Your task to perform on an android device: turn off javascript in the chrome app Image 0: 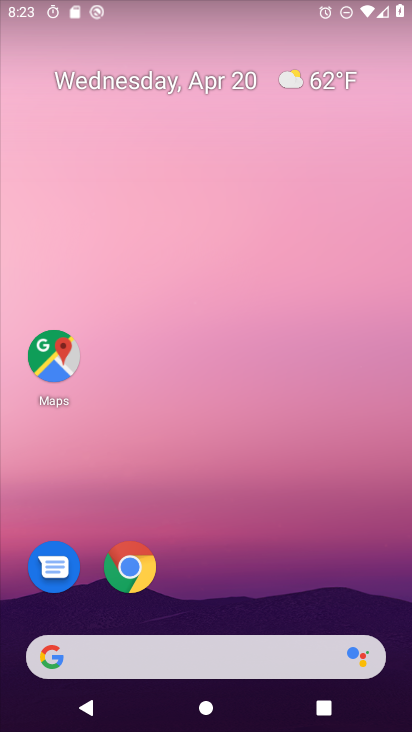
Step 0: click (152, 561)
Your task to perform on an android device: turn off javascript in the chrome app Image 1: 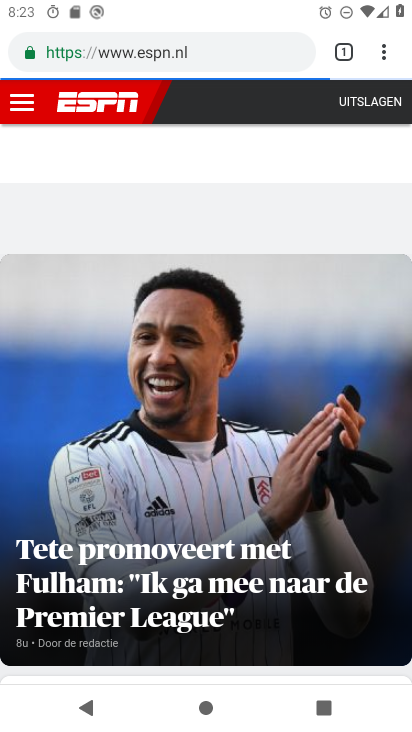
Step 1: click (383, 51)
Your task to perform on an android device: turn off javascript in the chrome app Image 2: 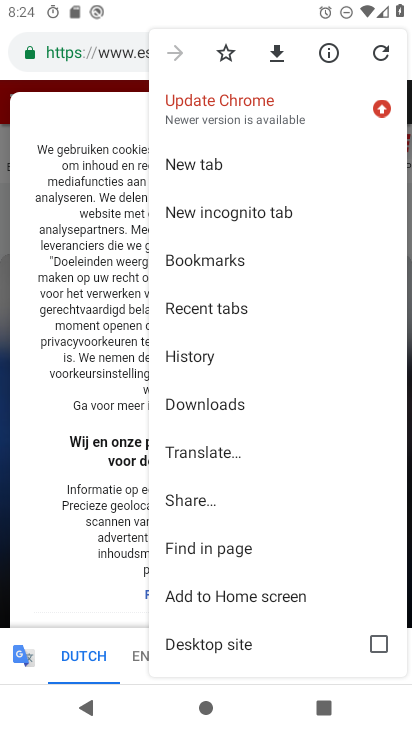
Step 2: drag from (319, 545) to (339, 131)
Your task to perform on an android device: turn off javascript in the chrome app Image 3: 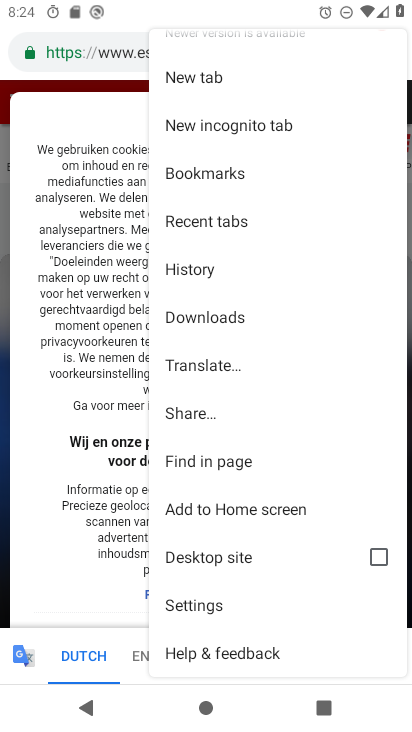
Step 3: click (181, 607)
Your task to perform on an android device: turn off javascript in the chrome app Image 4: 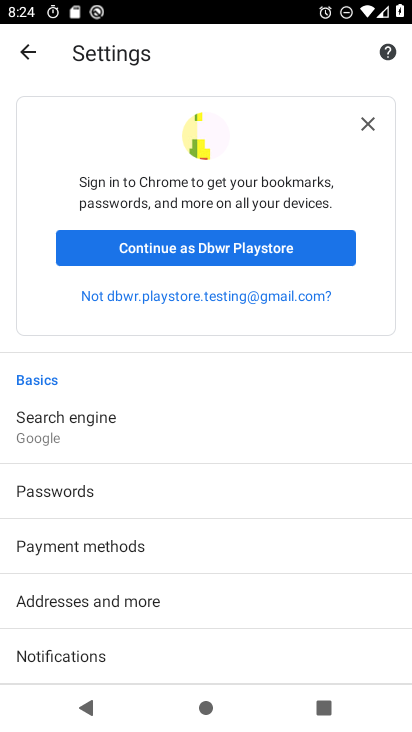
Step 4: drag from (238, 613) to (249, 61)
Your task to perform on an android device: turn off javascript in the chrome app Image 5: 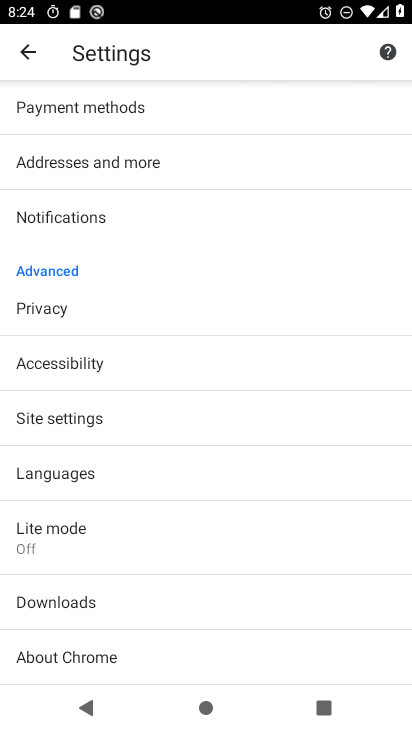
Step 5: click (58, 414)
Your task to perform on an android device: turn off javascript in the chrome app Image 6: 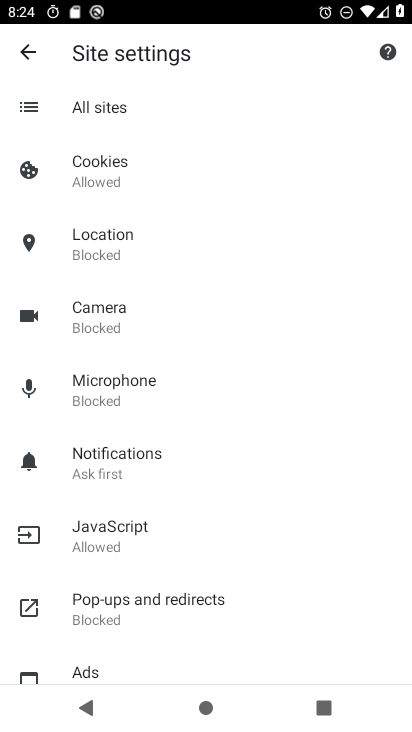
Step 6: click (89, 527)
Your task to perform on an android device: turn off javascript in the chrome app Image 7: 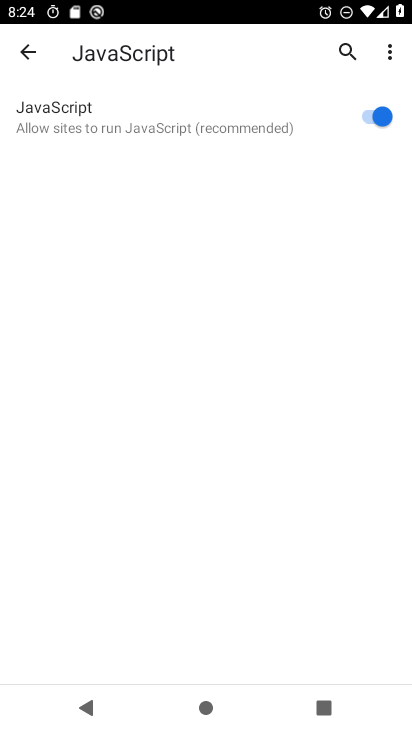
Step 7: click (384, 118)
Your task to perform on an android device: turn off javascript in the chrome app Image 8: 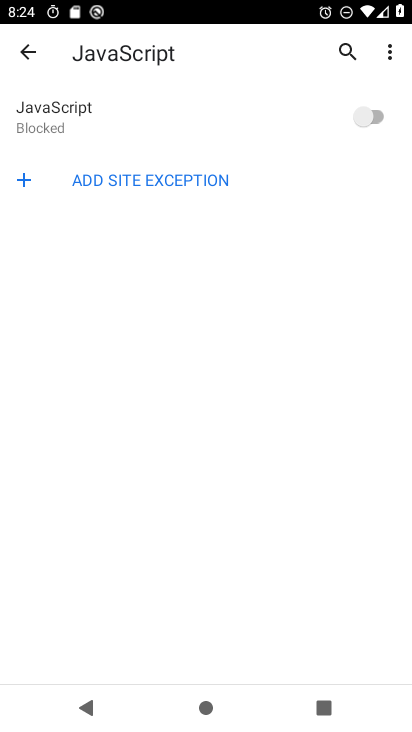
Step 8: task complete